Your task to perform on an android device: Open the map Image 0: 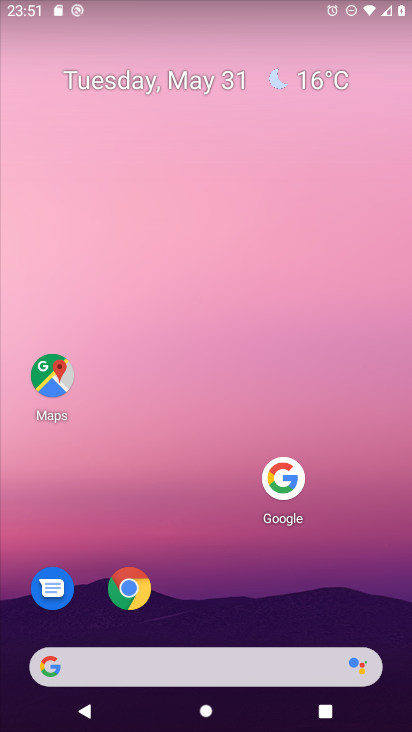
Step 0: click (46, 381)
Your task to perform on an android device: Open the map Image 1: 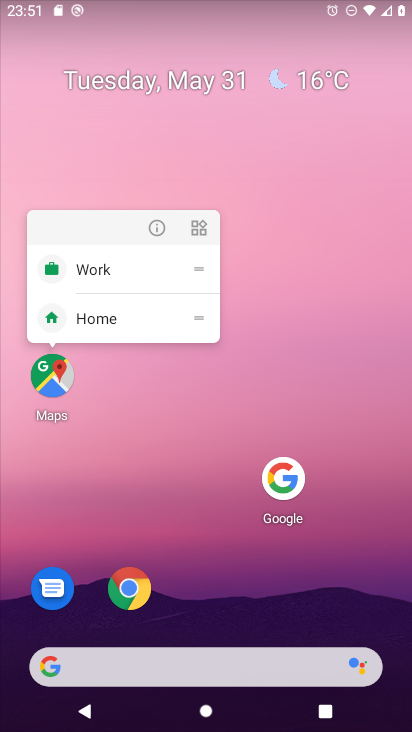
Step 1: click (58, 372)
Your task to perform on an android device: Open the map Image 2: 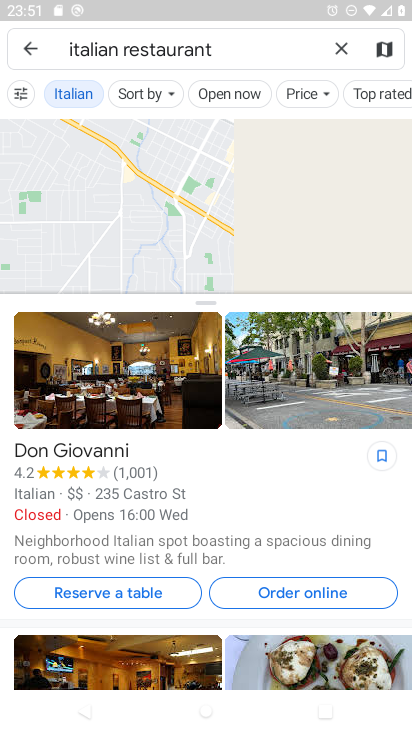
Step 2: click (31, 48)
Your task to perform on an android device: Open the map Image 3: 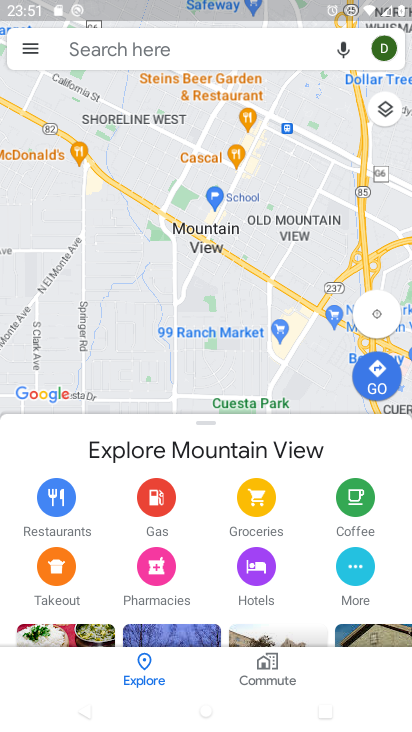
Step 3: task complete